Your task to perform on an android device: Search for Italian restaurants on Maps Image 0: 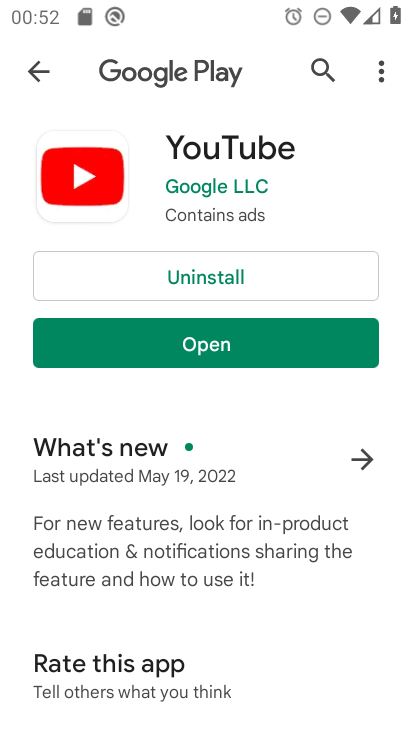
Step 0: press home button
Your task to perform on an android device: Search for Italian restaurants on Maps Image 1: 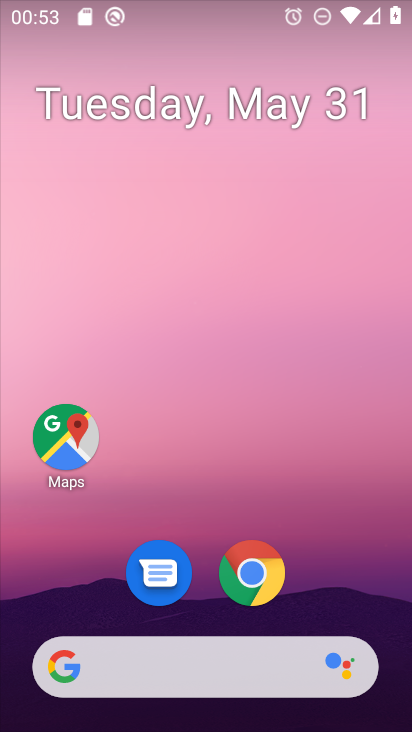
Step 1: click (44, 448)
Your task to perform on an android device: Search for Italian restaurants on Maps Image 2: 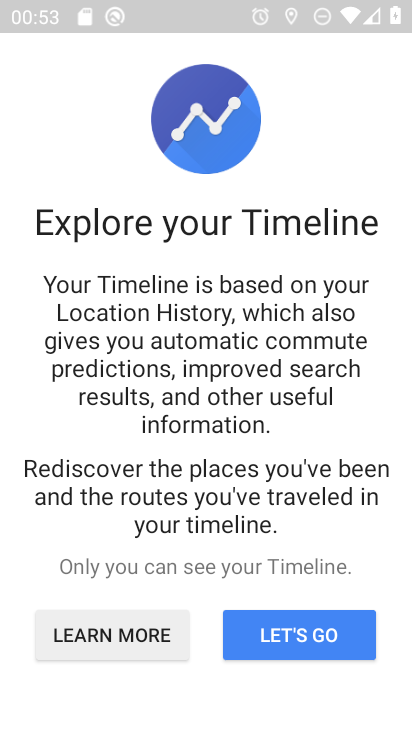
Step 2: drag from (221, 621) to (220, 17)
Your task to perform on an android device: Search for Italian restaurants on Maps Image 3: 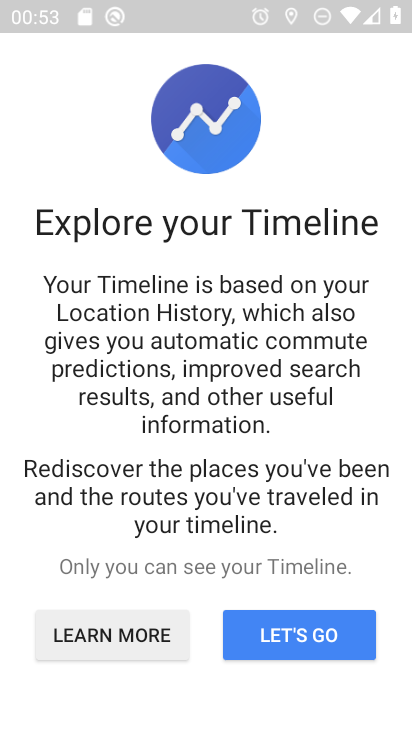
Step 3: press back button
Your task to perform on an android device: Search for Italian restaurants on Maps Image 4: 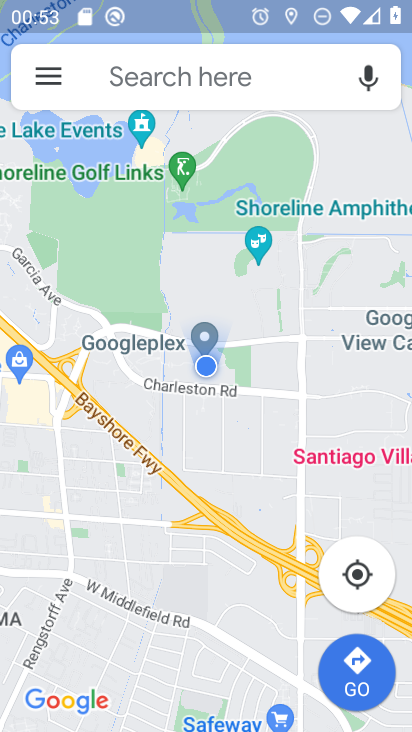
Step 4: click (216, 70)
Your task to perform on an android device: Search for Italian restaurants on Maps Image 5: 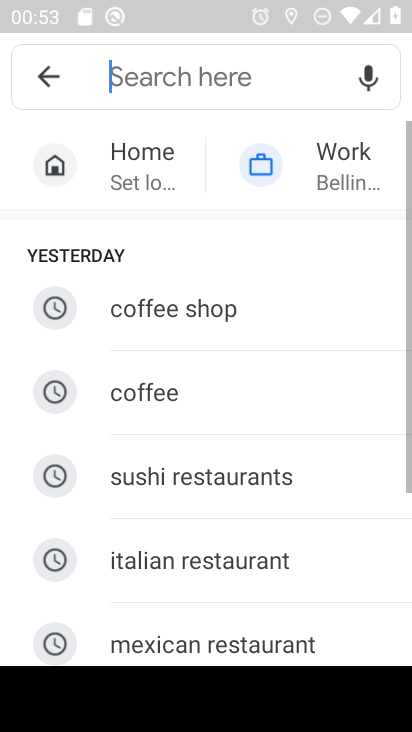
Step 5: click (206, 557)
Your task to perform on an android device: Search for Italian restaurants on Maps Image 6: 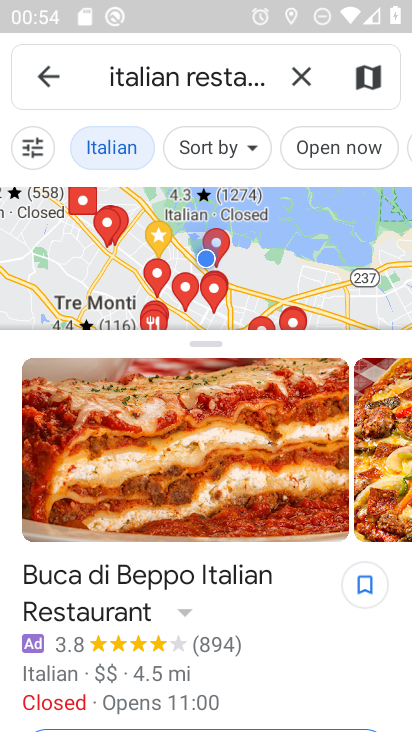
Step 6: task complete